Your task to perform on an android device: turn on showing notifications on the lock screen Image 0: 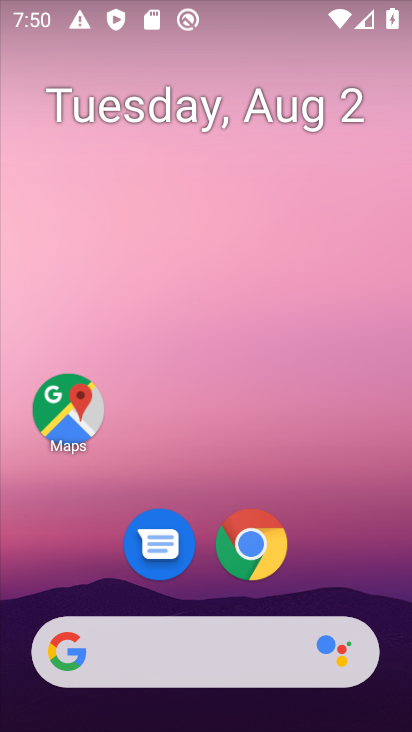
Step 0: drag from (255, 608) to (164, 38)
Your task to perform on an android device: turn on showing notifications on the lock screen Image 1: 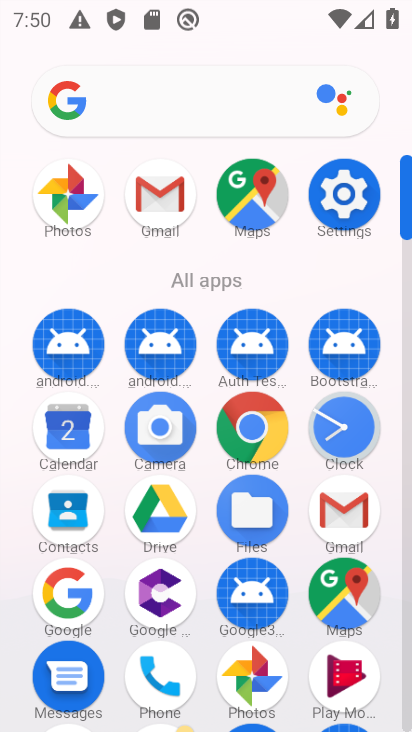
Step 1: click (345, 207)
Your task to perform on an android device: turn on showing notifications on the lock screen Image 2: 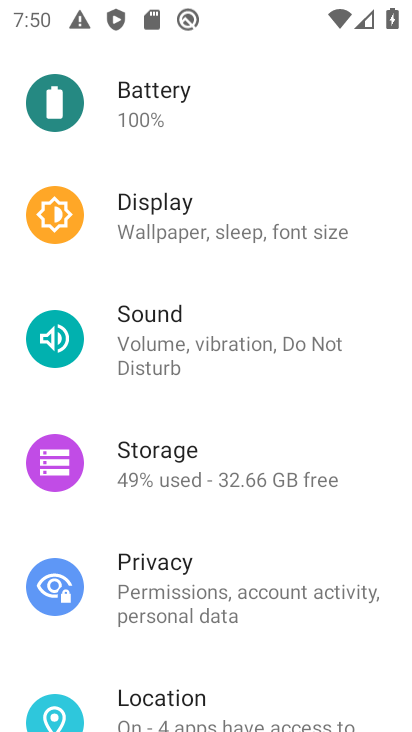
Step 2: click (162, 581)
Your task to perform on an android device: turn on showing notifications on the lock screen Image 3: 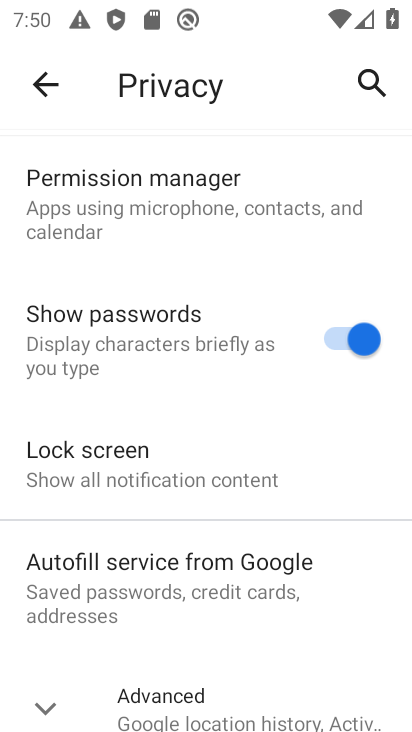
Step 3: click (114, 474)
Your task to perform on an android device: turn on showing notifications on the lock screen Image 4: 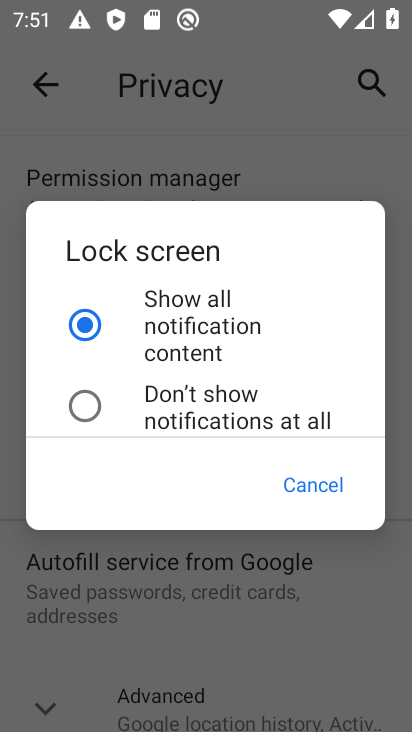
Step 4: click (328, 485)
Your task to perform on an android device: turn on showing notifications on the lock screen Image 5: 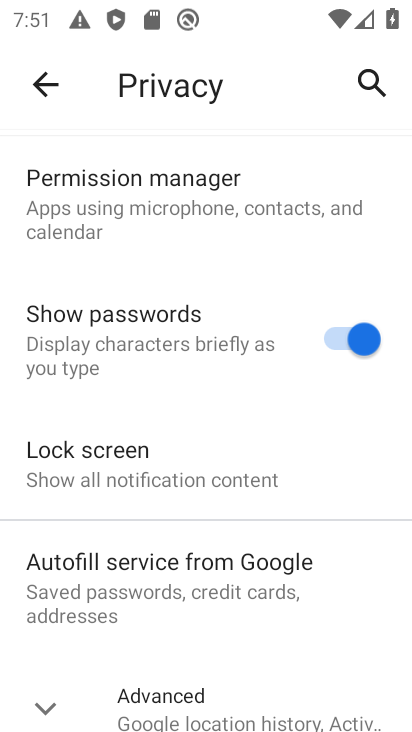
Step 5: task complete